Your task to perform on an android device: Open accessibility settings Image 0: 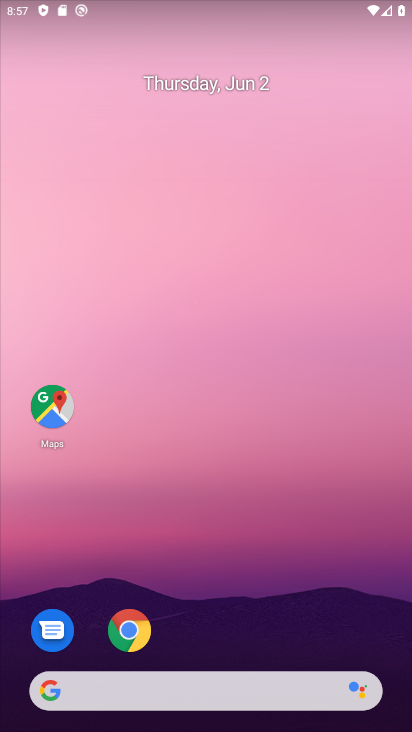
Step 0: drag from (179, 627) to (262, 154)
Your task to perform on an android device: Open accessibility settings Image 1: 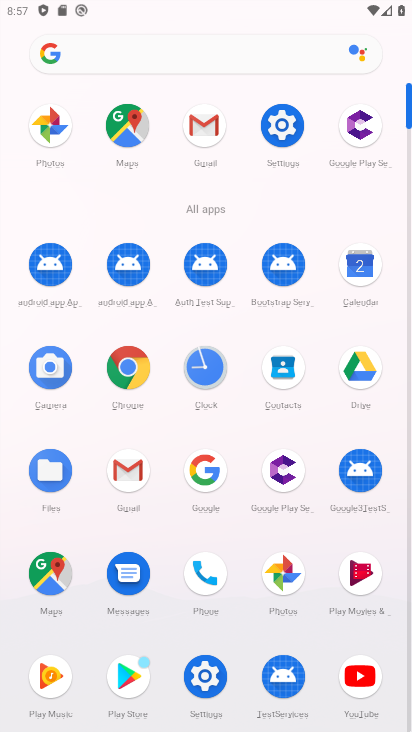
Step 1: drag from (184, 533) to (244, 286)
Your task to perform on an android device: Open accessibility settings Image 2: 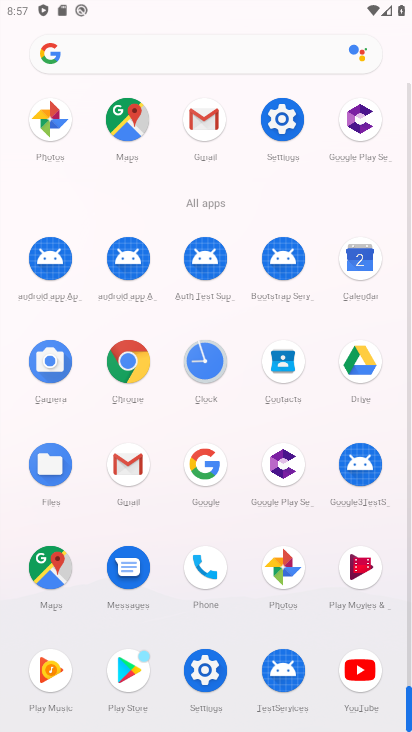
Step 2: click (203, 679)
Your task to perform on an android device: Open accessibility settings Image 3: 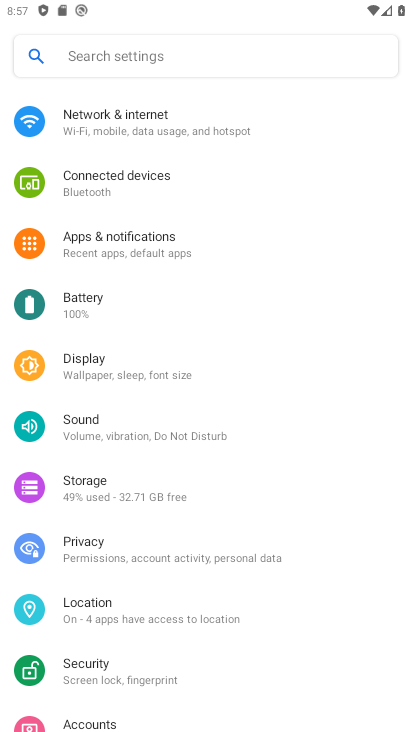
Step 3: drag from (225, 575) to (302, 220)
Your task to perform on an android device: Open accessibility settings Image 4: 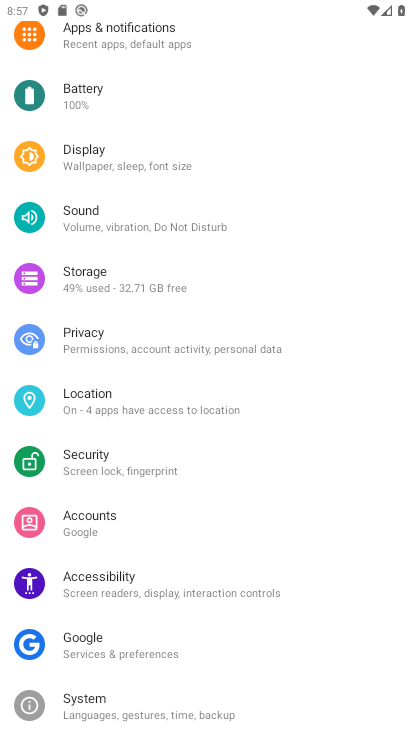
Step 4: drag from (193, 641) to (294, 257)
Your task to perform on an android device: Open accessibility settings Image 5: 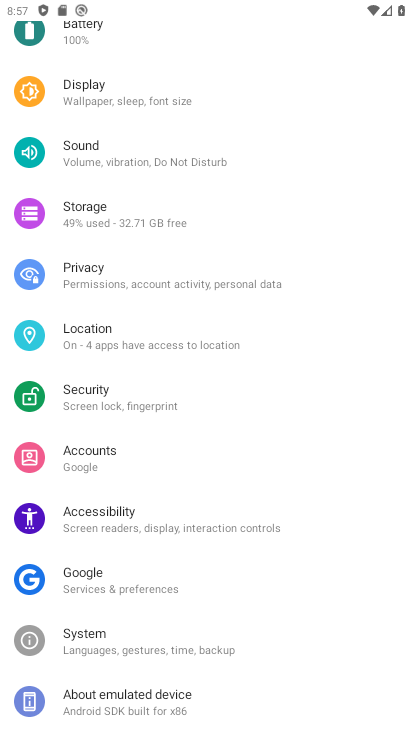
Step 5: click (132, 516)
Your task to perform on an android device: Open accessibility settings Image 6: 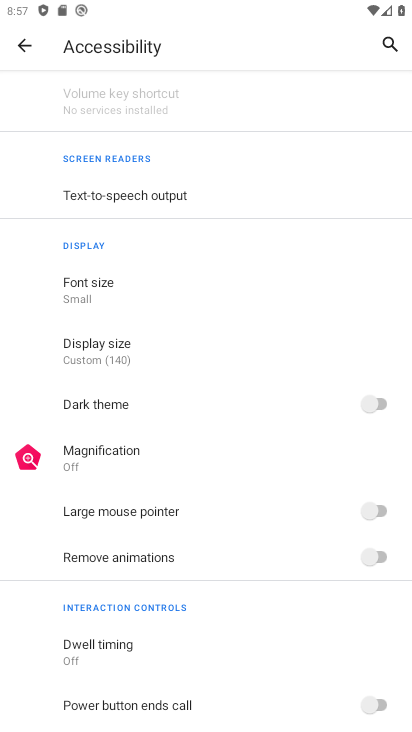
Step 6: task complete